Your task to perform on an android device: Open calendar and show me the third week of next month Image 0: 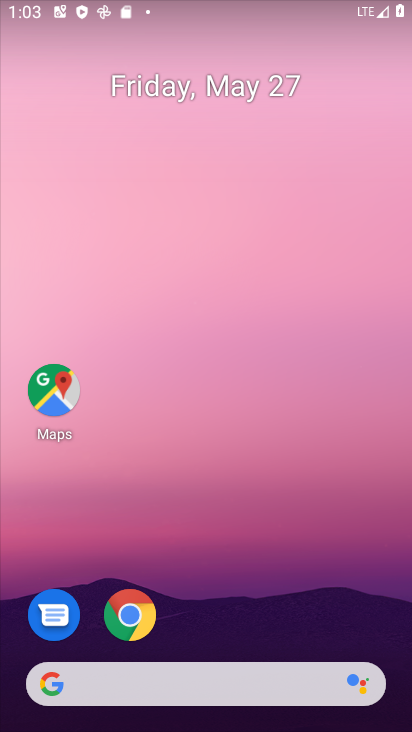
Step 0: drag from (230, 515) to (289, 2)
Your task to perform on an android device: Open calendar and show me the third week of next month Image 1: 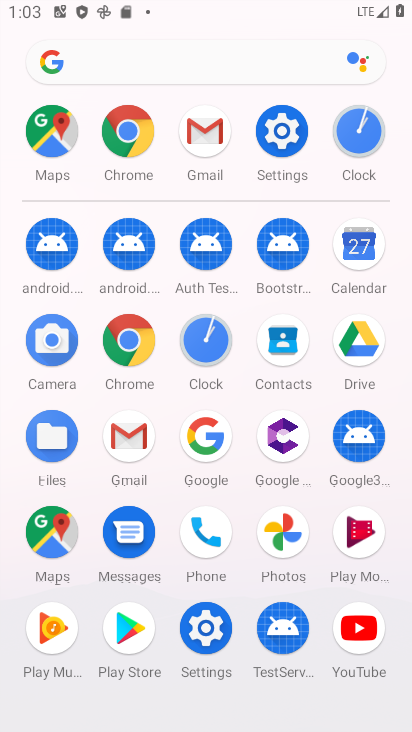
Step 1: click (359, 240)
Your task to perform on an android device: Open calendar and show me the third week of next month Image 2: 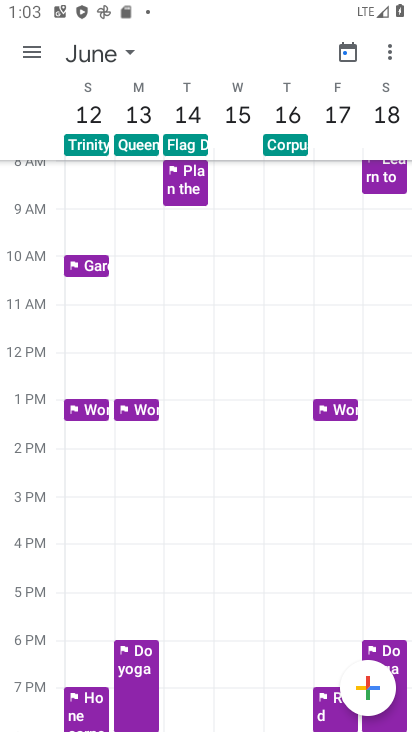
Step 2: click (133, 55)
Your task to perform on an android device: Open calendar and show me the third week of next month Image 3: 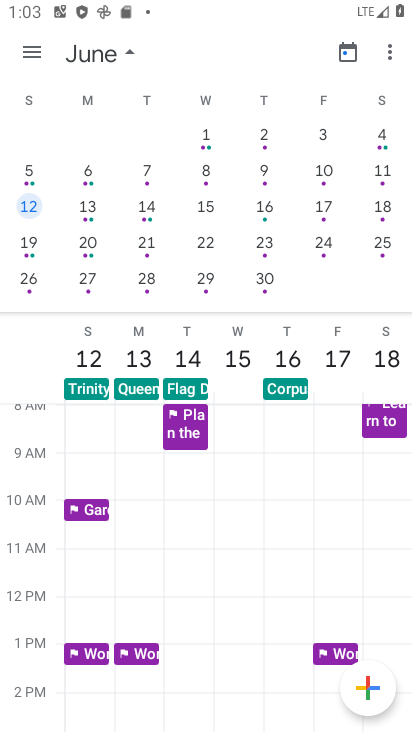
Step 3: click (262, 205)
Your task to perform on an android device: Open calendar and show me the third week of next month Image 4: 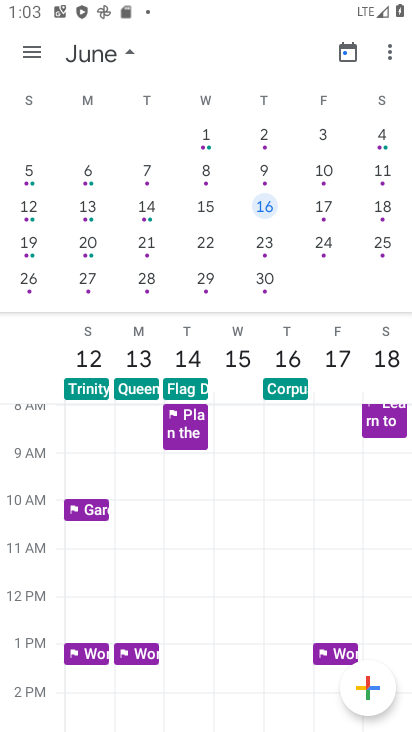
Step 4: task complete